Your task to perform on an android device: open a new tab in the chrome app Image 0: 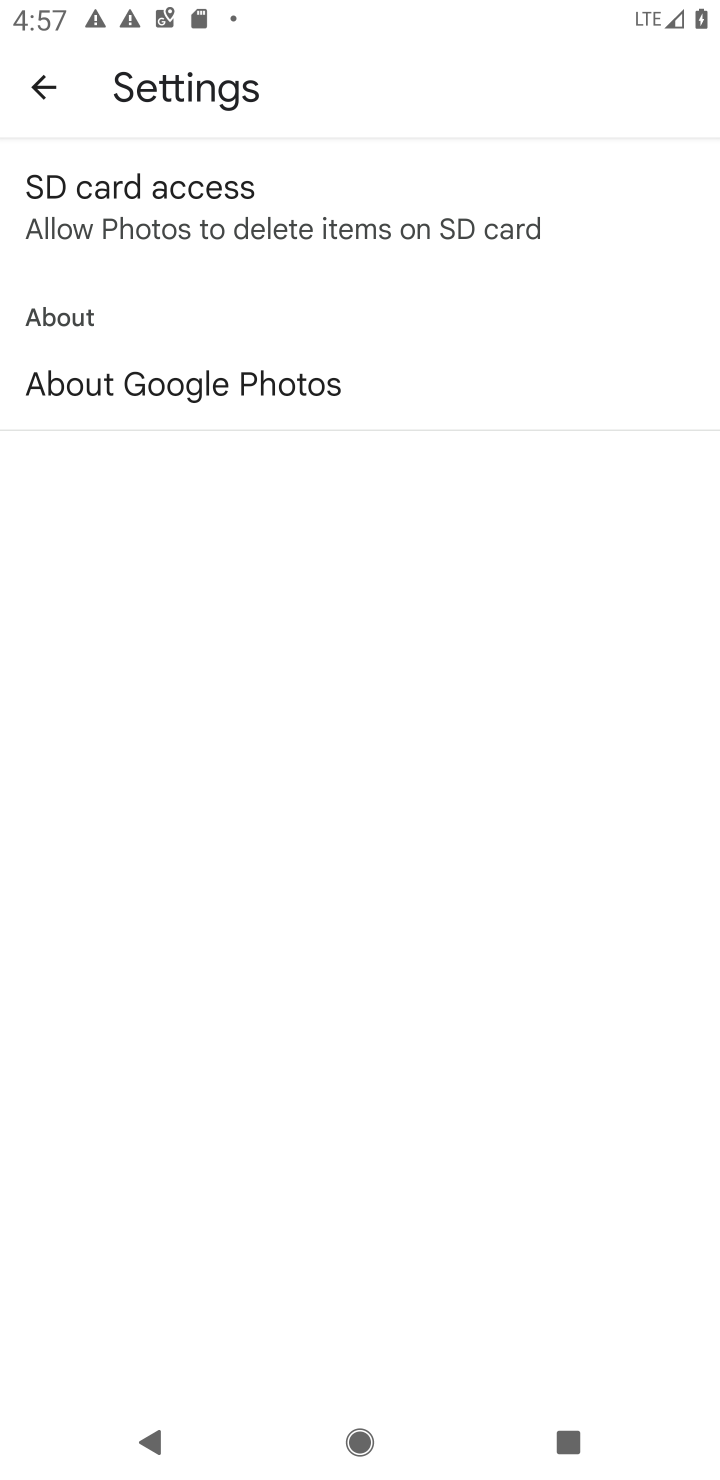
Step 0: press home button
Your task to perform on an android device: open a new tab in the chrome app Image 1: 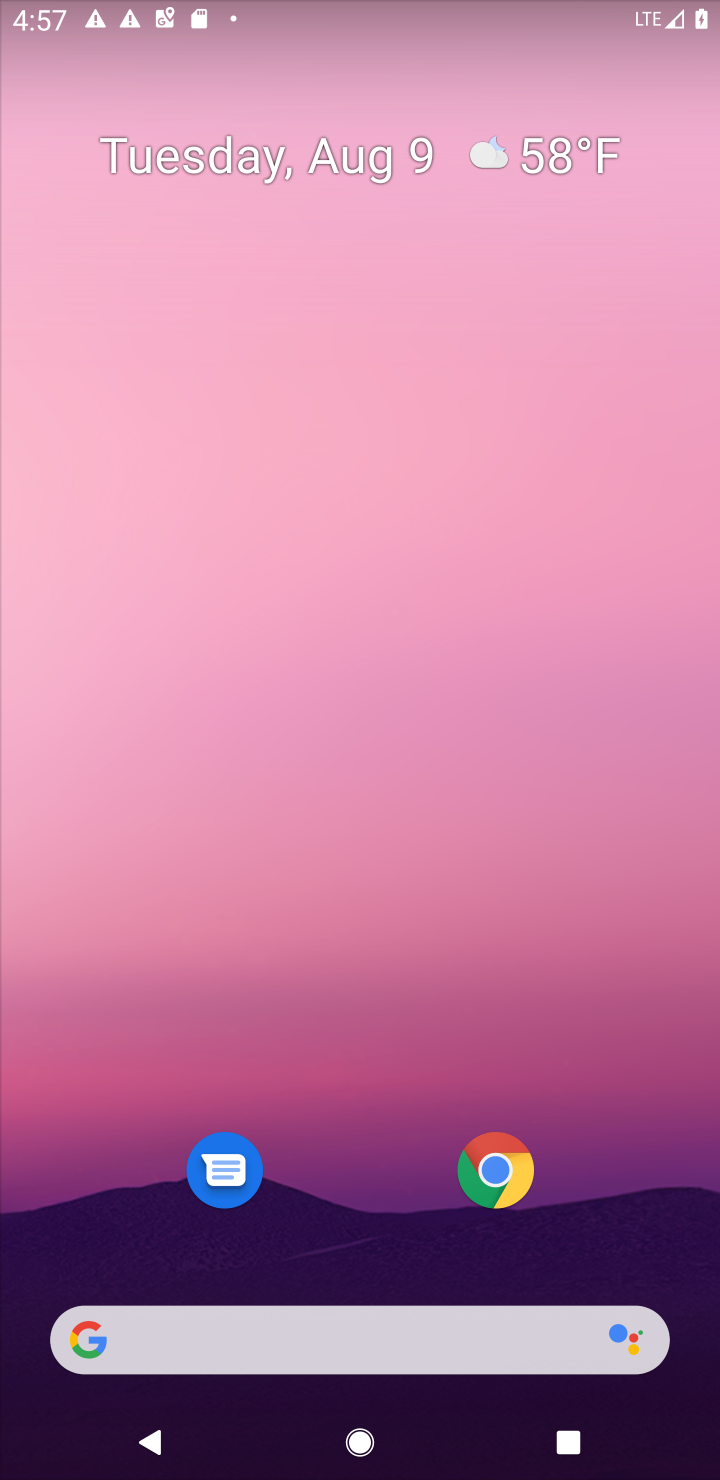
Step 1: click (490, 1178)
Your task to perform on an android device: open a new tab in the chrome app Image 2: 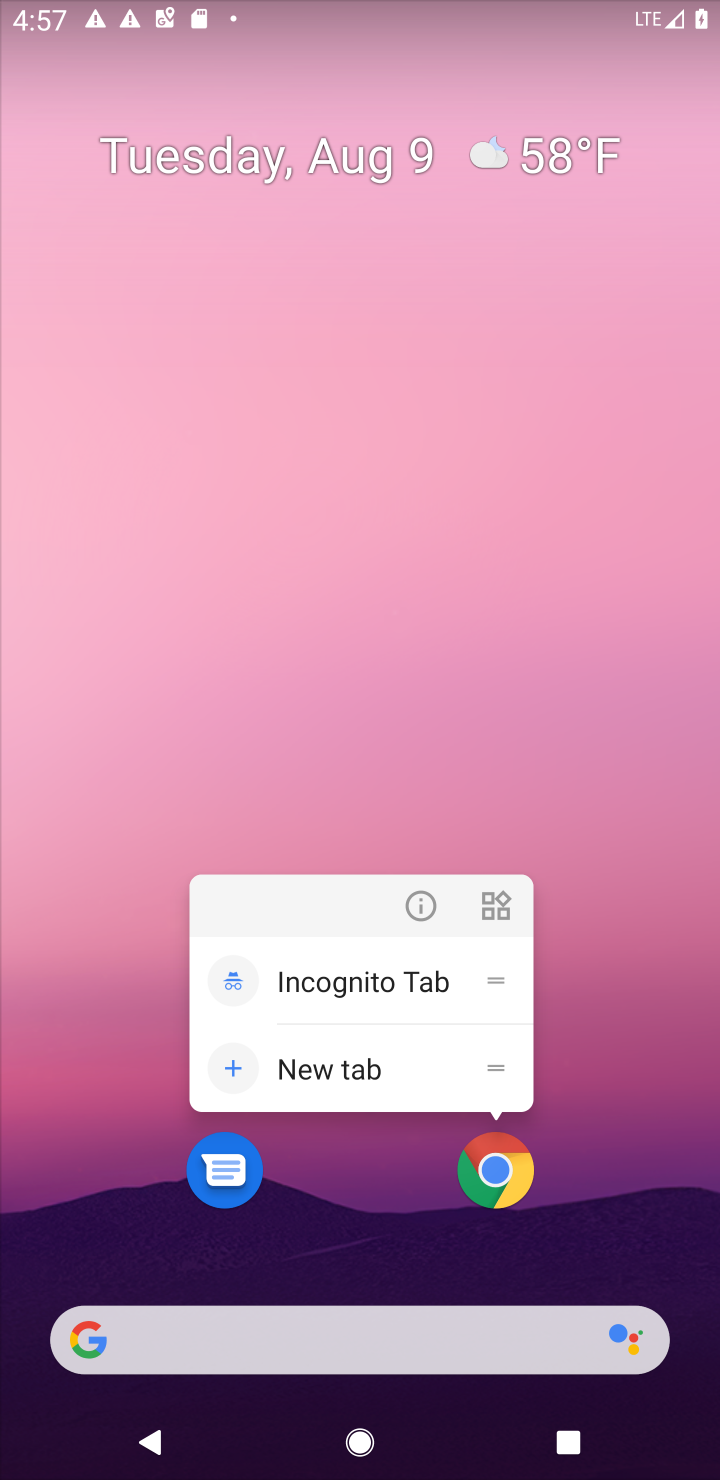
Step 2: click (490, 1183)
Your task to perform on an android device: open a new tab in the chrome app Image 3: 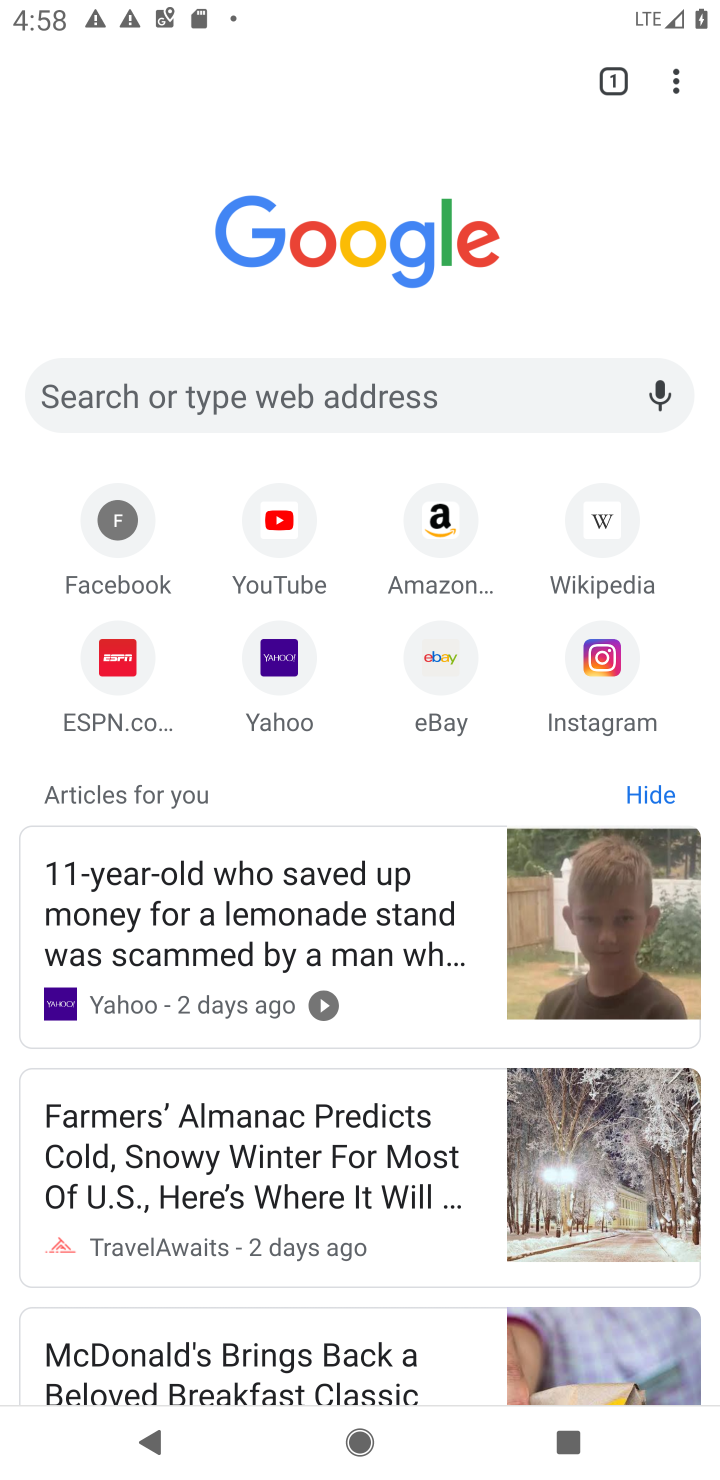
Step 3: click (625, 82)
Your task to perform on an android device: open a new tab in the chrome app Image 4: 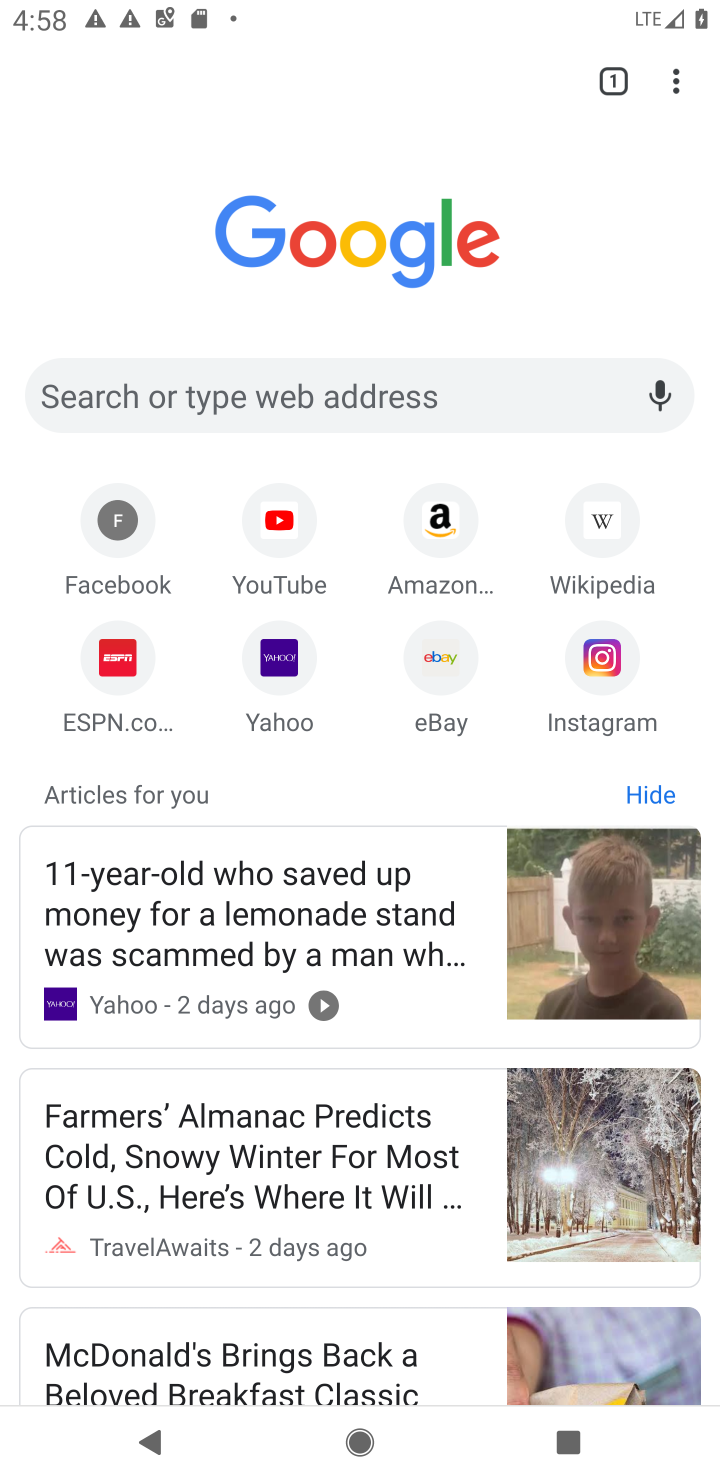
Step 4: click (666, 87)
Your task to perform on an android device: open a new tab in the chrome app Image 5: 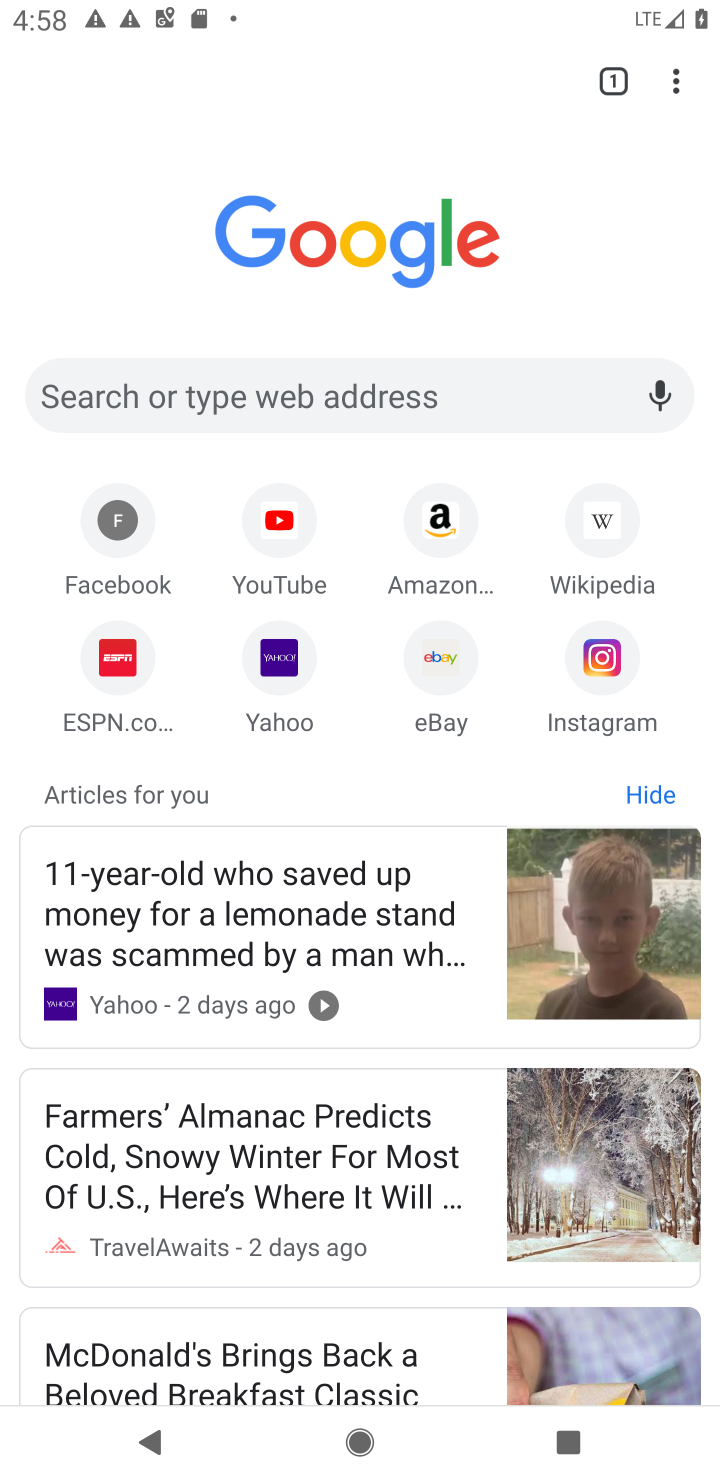
Step 5: click (678, 84)
Your task to perform on an android device: open a new tab in the chrome app Image 6: 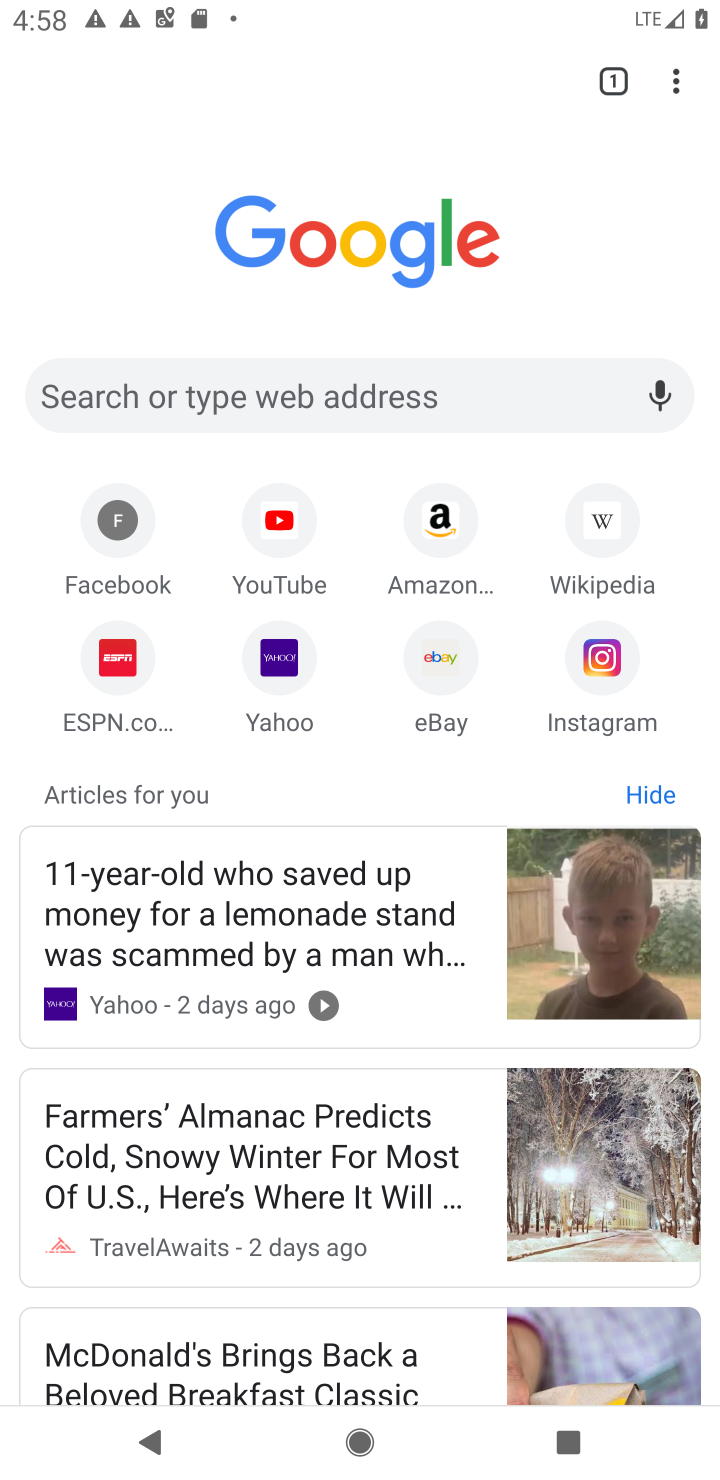
Step 6: task complete